Your task to perform on an android device: set the timer Image 0: 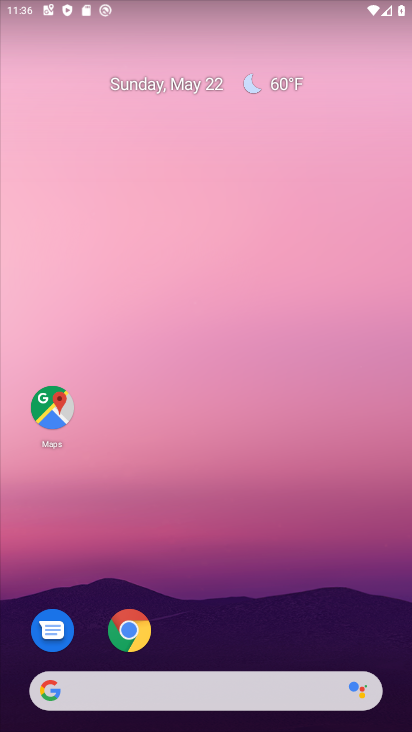
Step 0: drag from (250, 614) to (202, 179)
Your task to perform on an android device: set the timer Image 1: 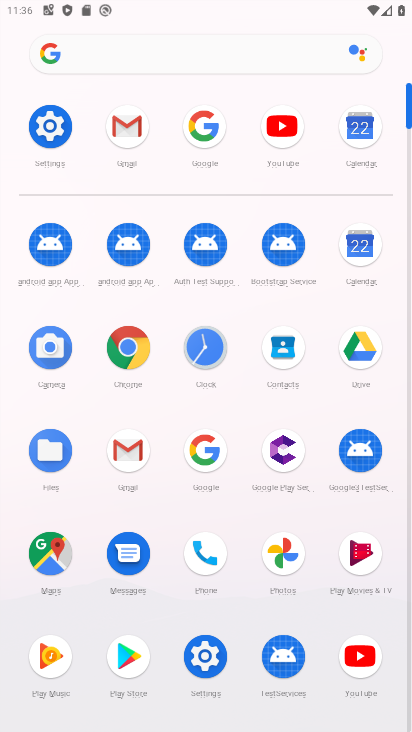
Step 1: click (206, 349)
Your task to perform on an android device: set the timer Image 2: 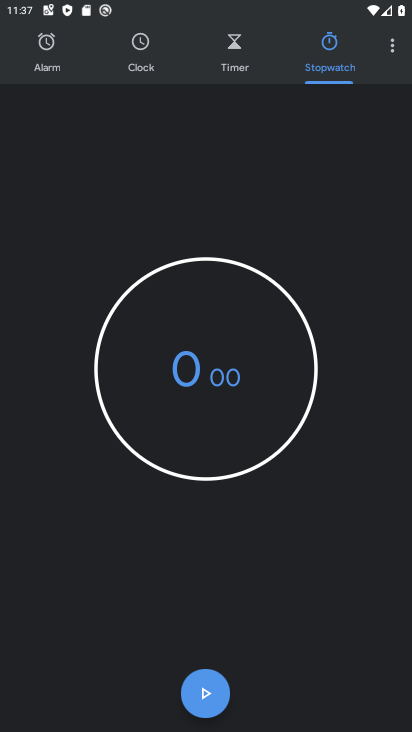
Step 2: click (244, 41)
Your task to perform on an android device: set the timer Image 3: 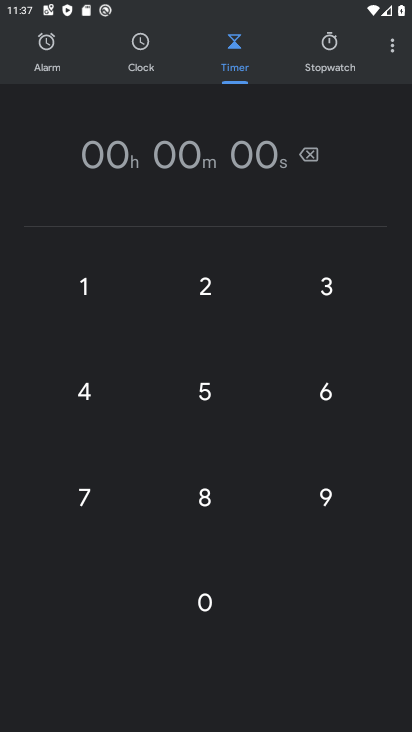
Step 3: type "1234"
Your task to perform on an android device: set the timer Image 4: 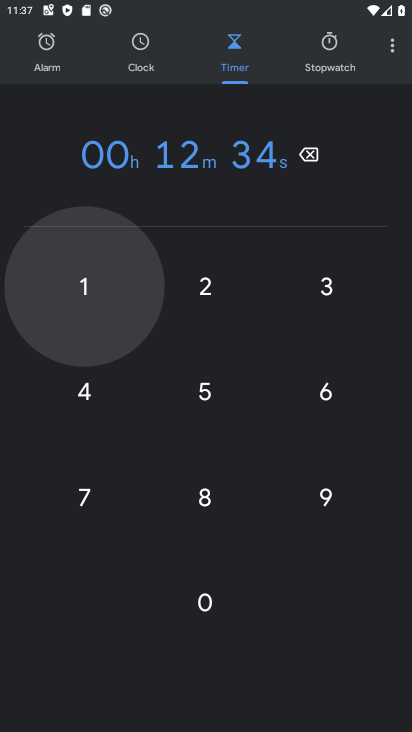
Step 4: type ""
Your task to perform on an android device: set the timer Image 5: 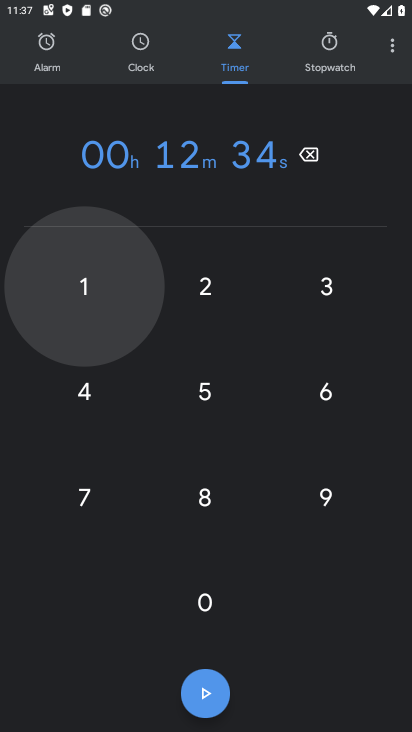
Step 5: click (209, 690)
Your task to perform on an android device: set the timer Image 6: 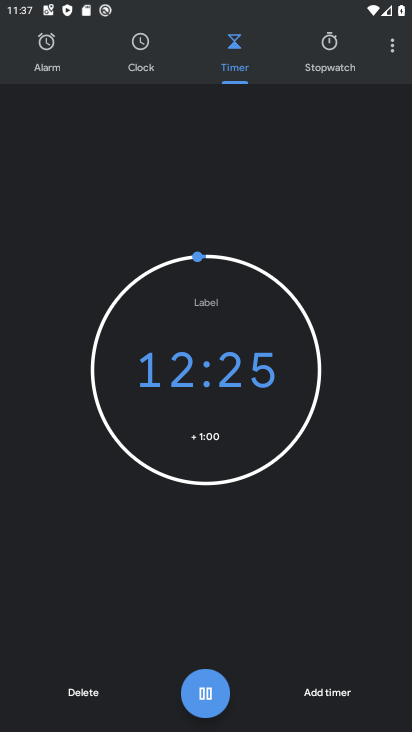
Step 6: click (206, 694)
Your task to perform on an android device: set the timer Image 7: 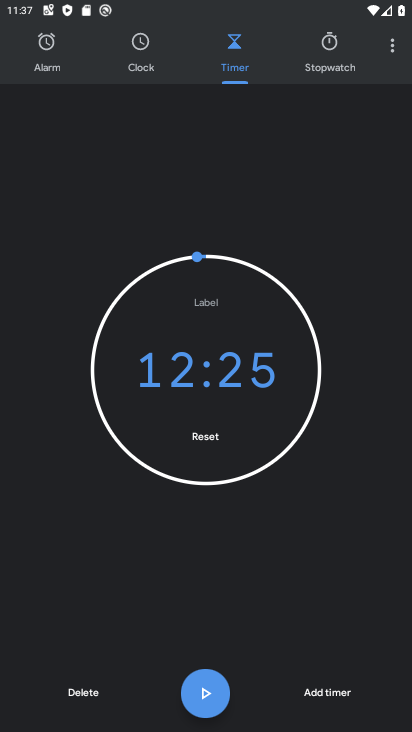
Step 7: task complete